Your task to perform on an android device: install app "Indeed Job Search" Image 0: 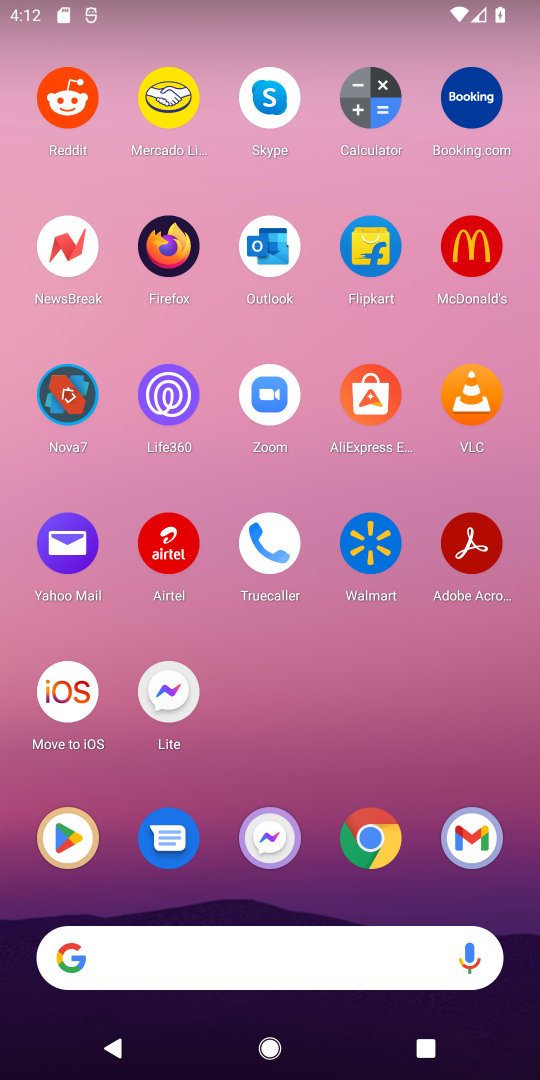
Step 0: click (78, 859)
Your task to perform on an android device: install app "Indeed Job Search" Image 1: 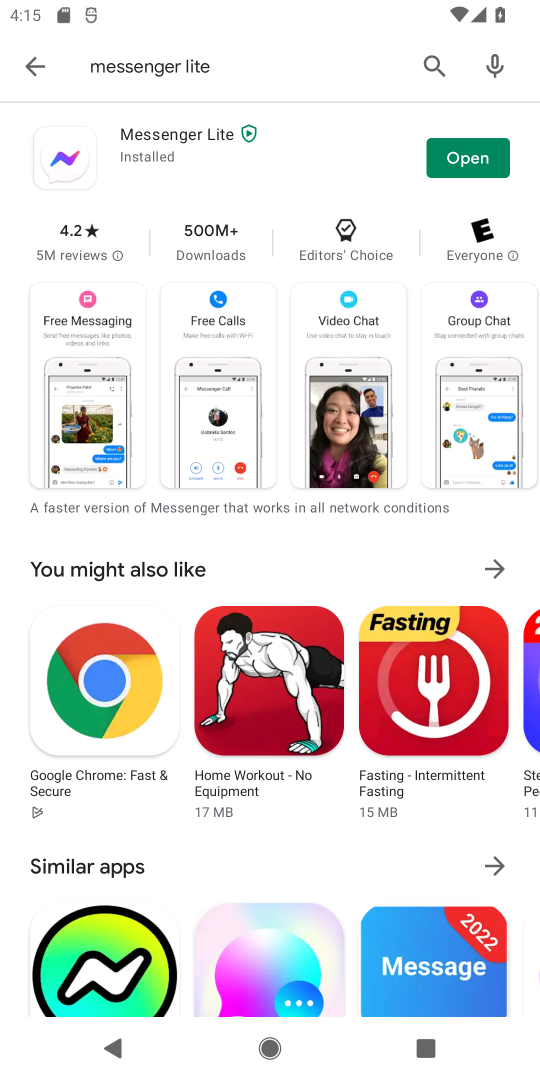
Step 1: click (440, 63)
Your task to perform on an android device: install app "Indeed Job Search" Image 2: 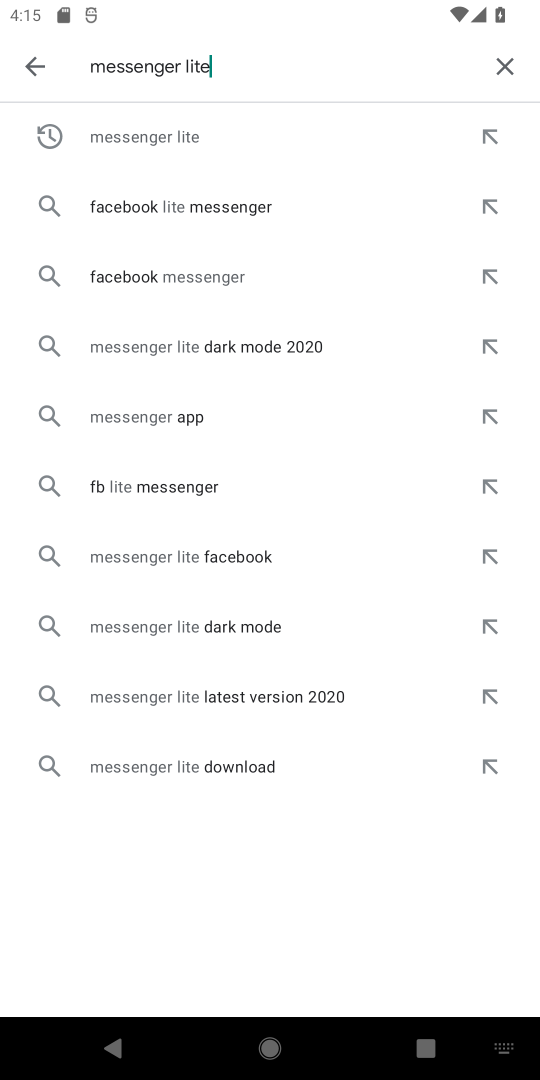
Step 2: click (502, 74)
Your task to perform on an android device: install app "Indeed Job Search" Image 3: 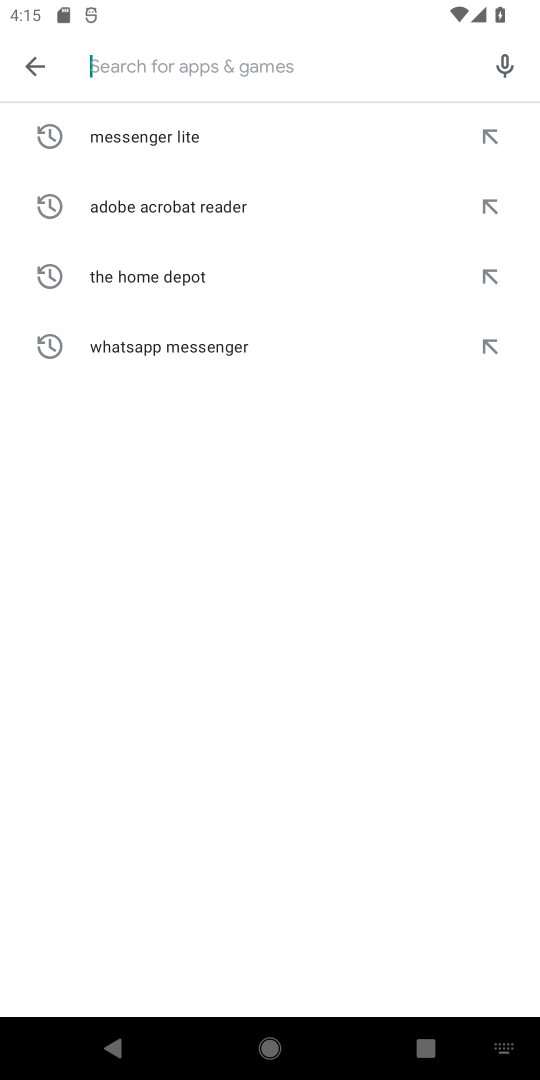
Step 3: type "Indeed Job Search"
Your task to perform on an android device: install app "Indeed Job Search" Image 4: 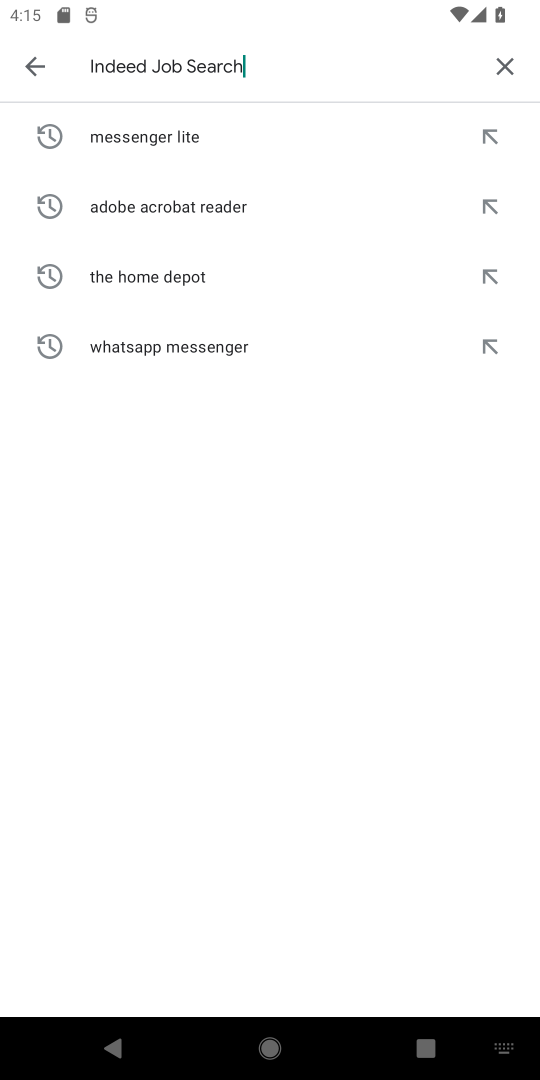
Step 4: type ""
Your task to perform on an android device: install app "Indeed Job Search" Image 5: 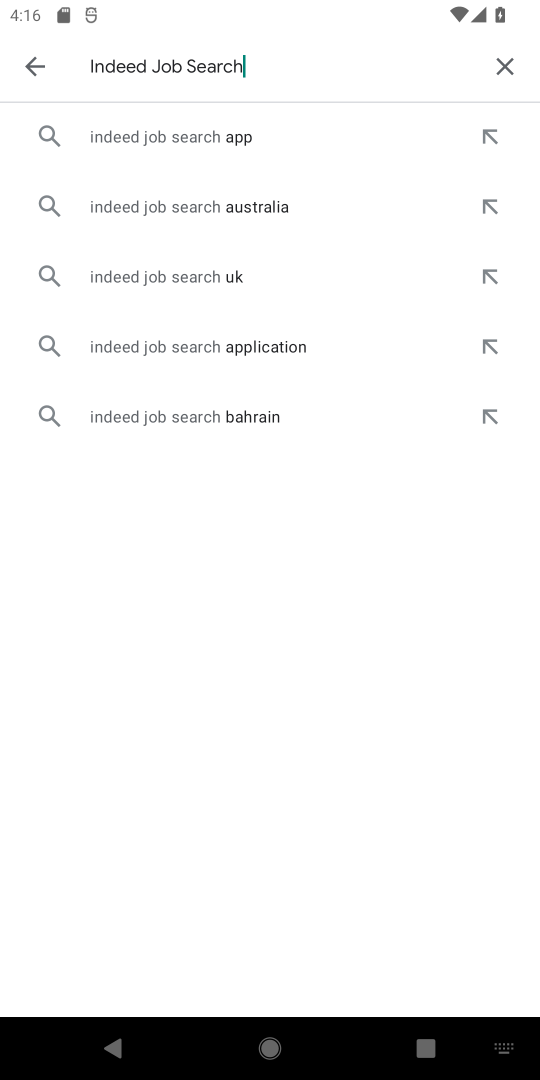
Step 5: click (290, 148)
Your task to perform on an android device: install app "Indeed Job Search" Image 6: 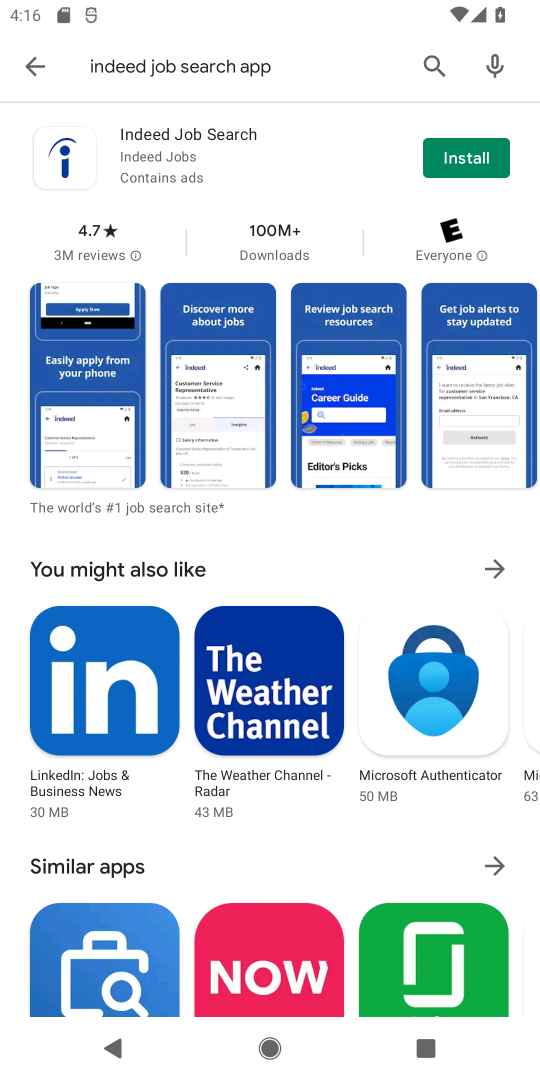
Step 6: click (457, 154)
Your task to perform on an android device: install app "Indeed Job Search" Image 7: 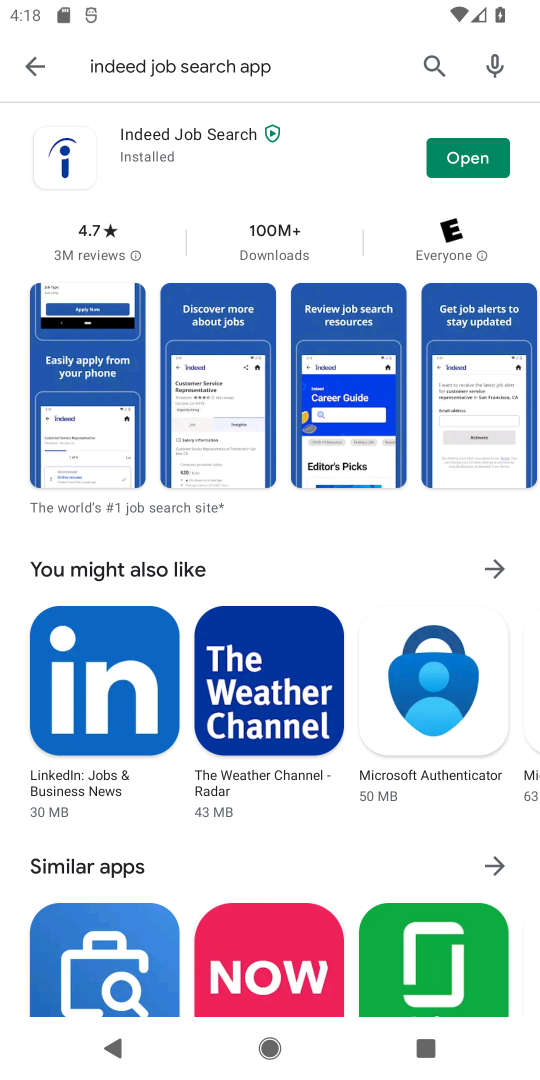
Step 7: task complete